Your task to perform on an android device: toggle airplane mode Image 0: 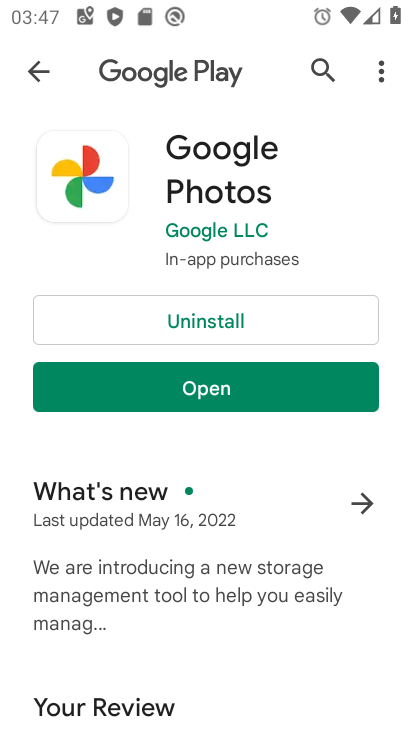
Step 0: press home button
Your task to perform on an android device: toggle airplane mode Image 1: 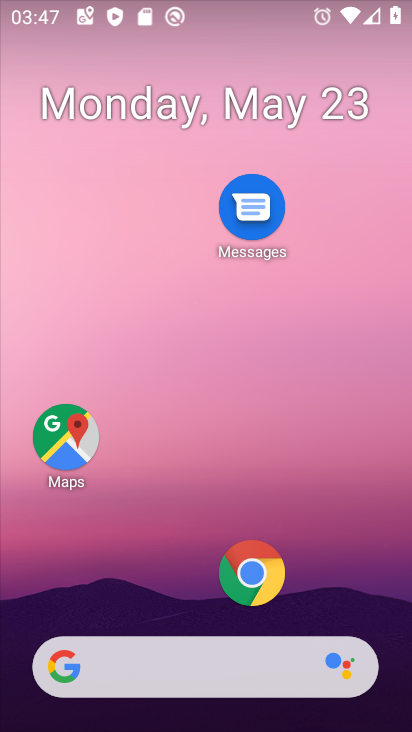
Step 1: drag from (244, 650) to (225, 1)
Your task to perform on an android device: toggle airplane mode Image 2: 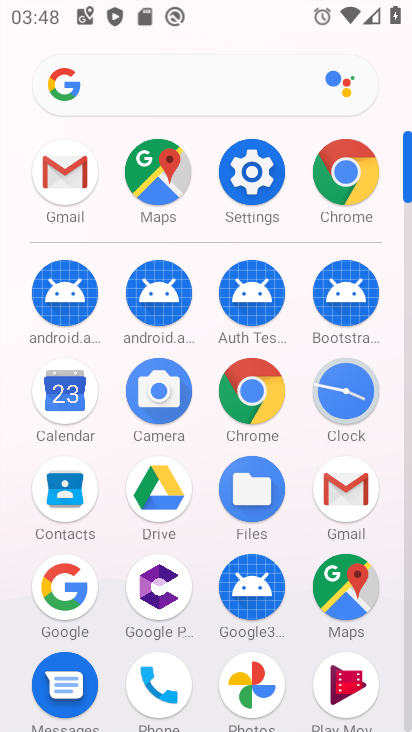
Step 2: click (265, 143)
Your task to perform on an android device: toggle airplane mode Image 3: 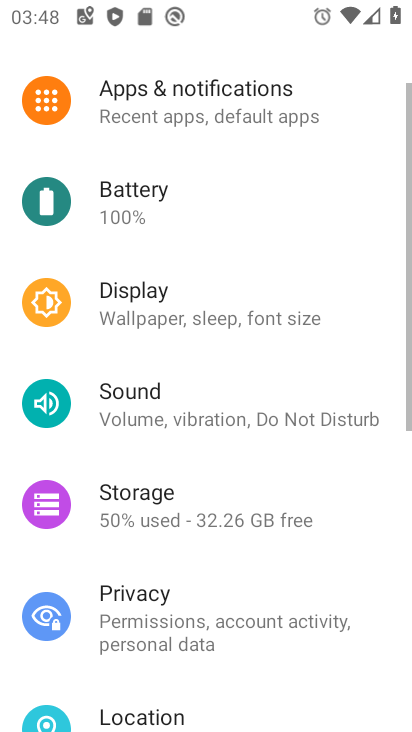
Step 3: drag from (265, 143) to (236, 688)
Your task to perform on an android device: toggle airplane mode Image 4: 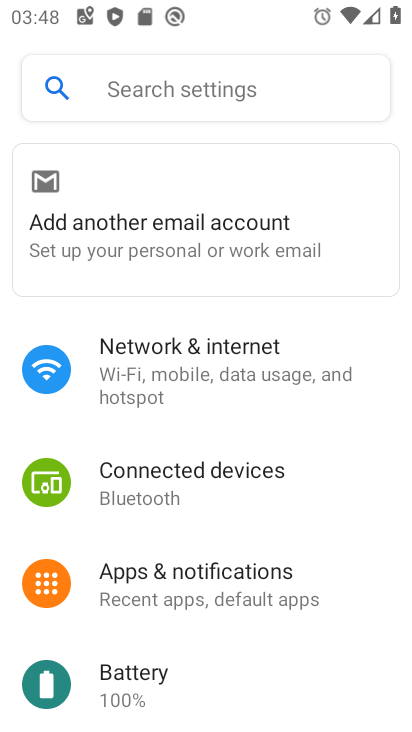
Step 4: click (241, 373)
Your task to perform on an android device: toggle airplane mode Image 5: 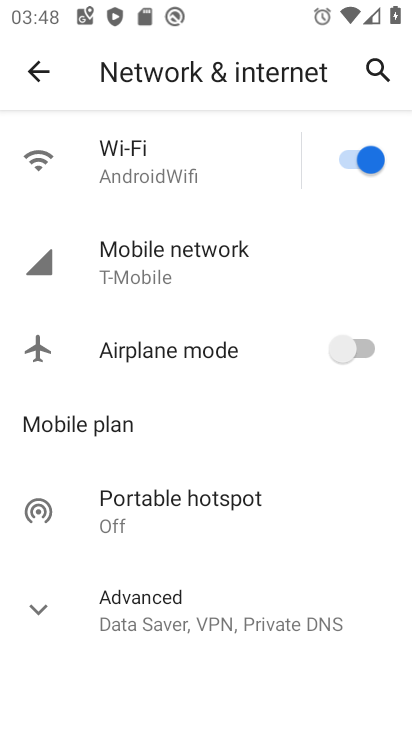
Step 5: click (351, 344)
Your task to perform on an android device: toggle airplane mode Image 6: 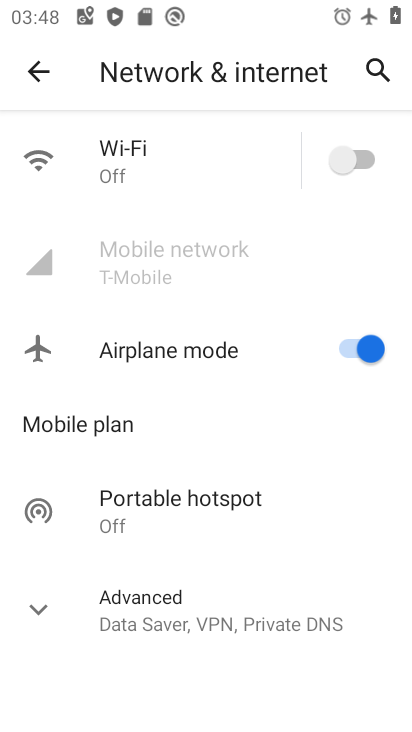
Step 6: task complete